Your task to perform on an android device: change the clock display to analog Image 0: 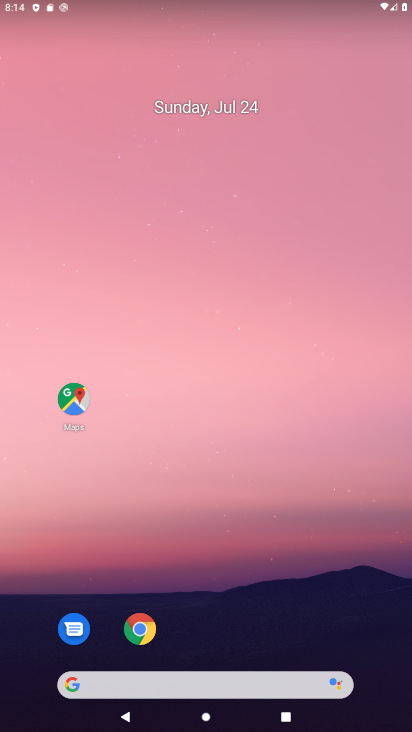
Step 0: drag from (240, 634) to (285, 147)
Your task to perform on an android device: change the clock display to analog Image 1: 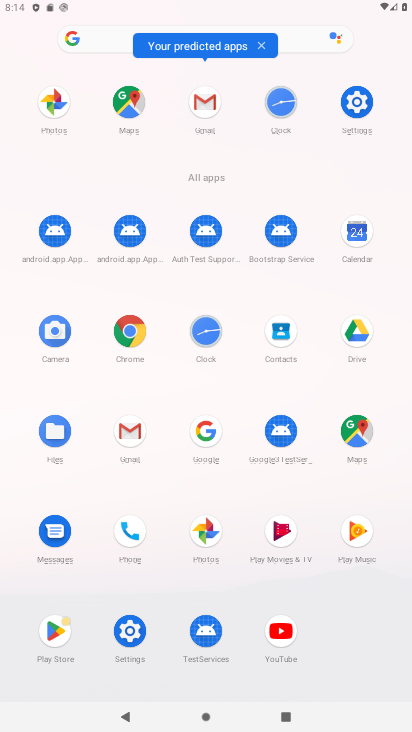
Step 1: click (209, 324)
Your task to perform on an android device: change the clock display to analog Image 2: 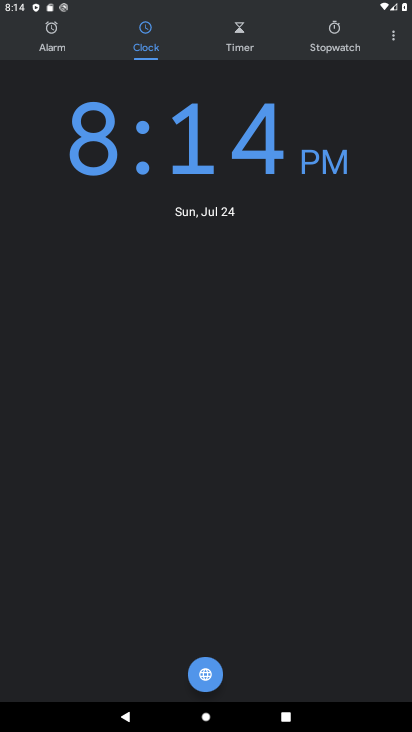
Step 2: click (399, 36)
Your task to perform on an android device: change the clock display to analog Image 3: 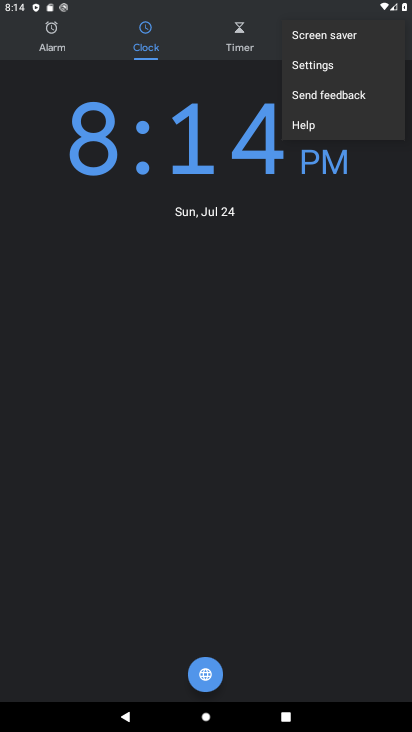
Step 3: click (311, 66)
Your task to perform on an android device: change the clock display to analog Image 4: 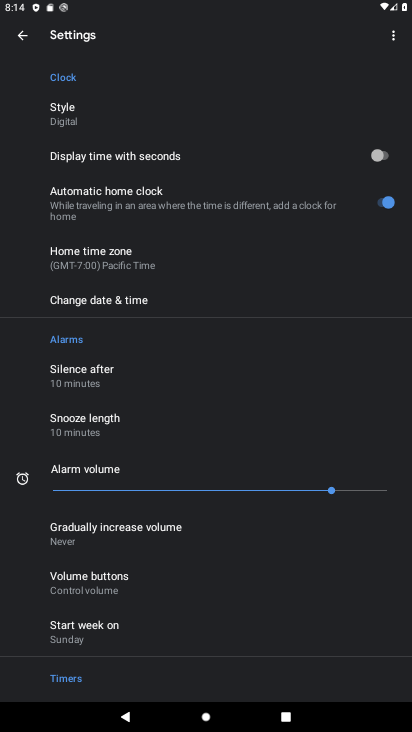
Step 4: click (69, 107)
Your task to perform on an android device: change the clock display to analog Image 5: 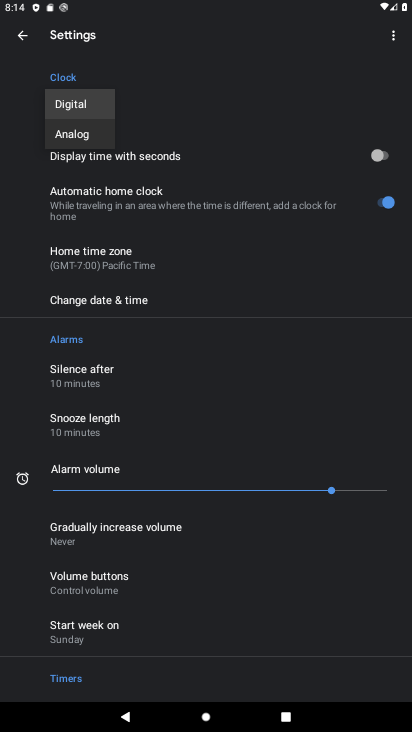
Step 5: click (77, 128)
Your task to perform on an android device: change the clock display to analog Image 6: 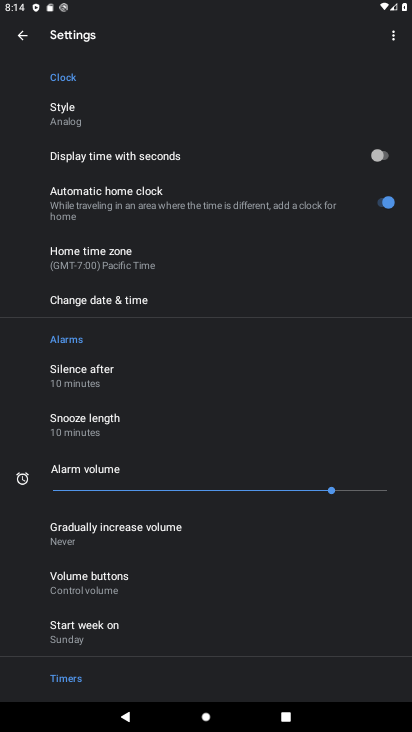
Step 6: task complete